Your task to perform on an android device: Open the map Image 0: 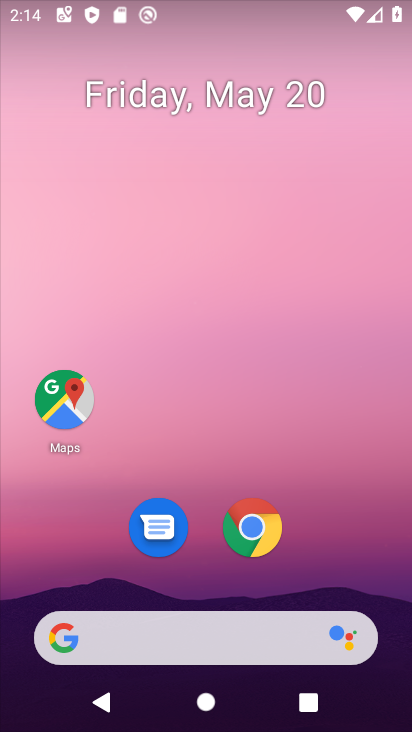
Step 0: click (53, 414)
Your task to perform on an android device: Open the map Image 1: 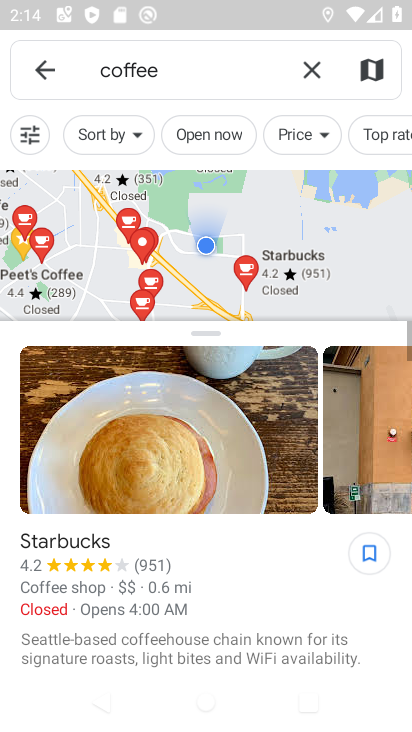
Step 1: click (310, 73)
Your task to perform on an android device: Open the map Image 2: 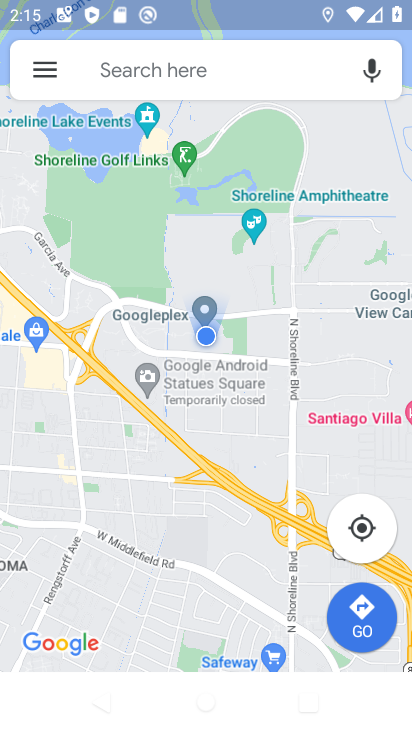
Step 2: task complete